Your task to perform on an android device: show emergency info Image 0: 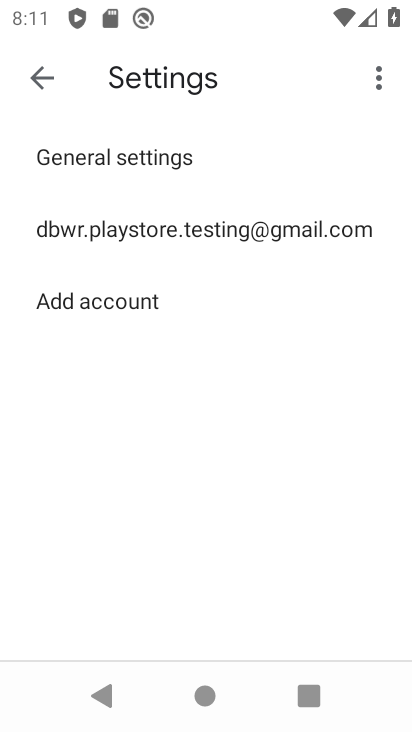
Step 0: press home button
Your task to perform on an android device: show emergency info Image 1: 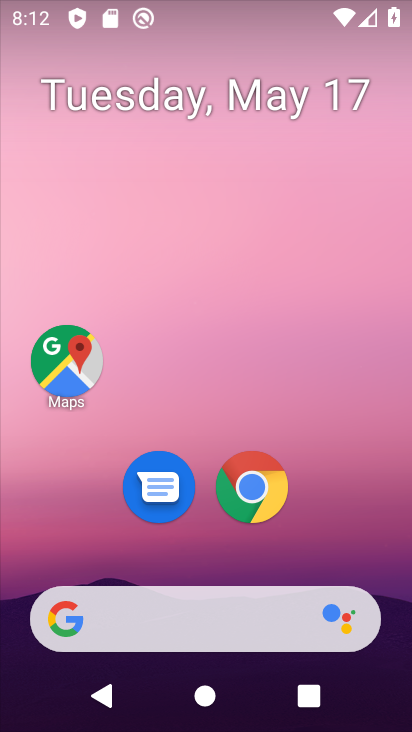
Step 1: drag from (218, 650) to (363, 80)
Your task to perform on an android device: show emergency info Image 2: 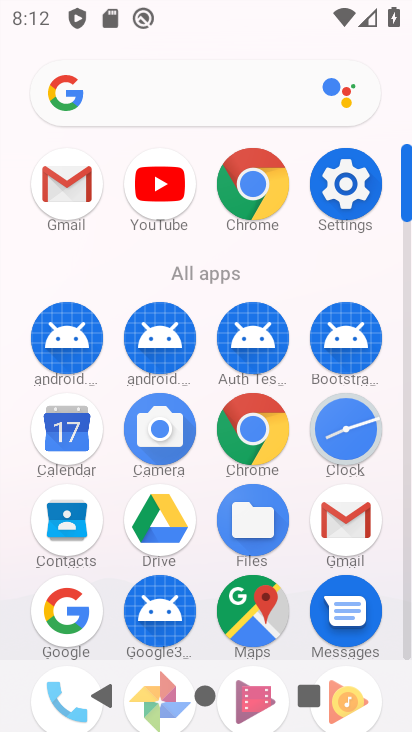
Step 2: click (329, 199)
Your task to perform on an android device: show emergency info Image 3: 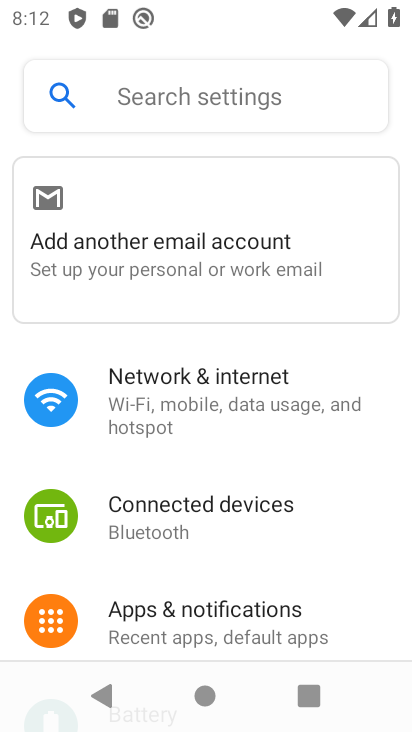
Step 3: click (196, 90)
Your task to perform on an android device: show emergency info Image 4: 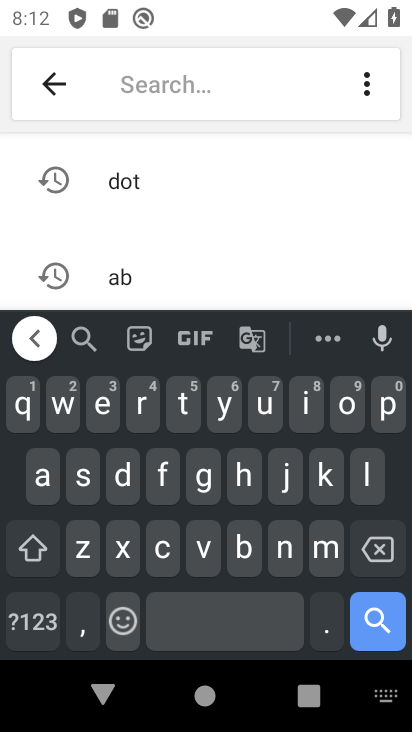
Step 4: click (99, 399)
Your task to perform on an android device: show emergency info Image 5: 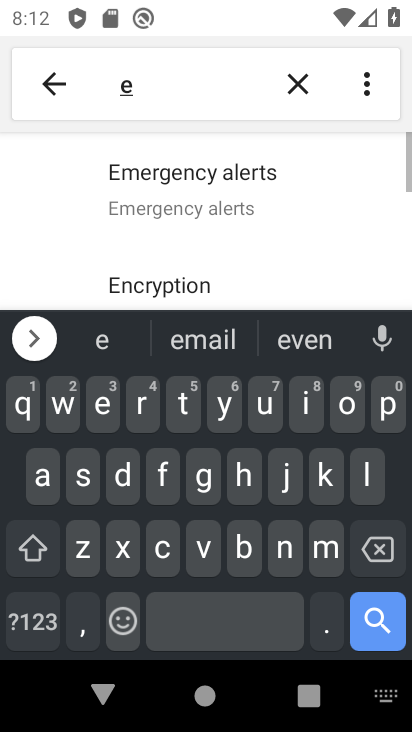
Step 5: click (333, 544)
Your task to perform on an android device: show emergency info Image 6: 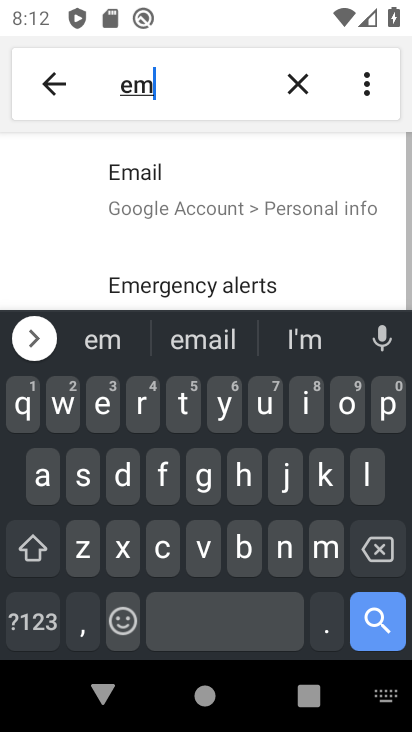
Step 6: click (109, 409)
Your task to perform on an android device: show emergency info Image 7: 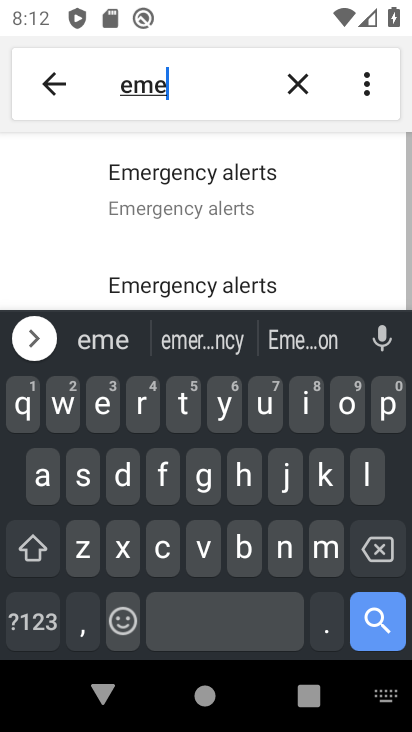
Step 7: click (190, 337)
Your task to perform on an android device: show emergency info Image 8: 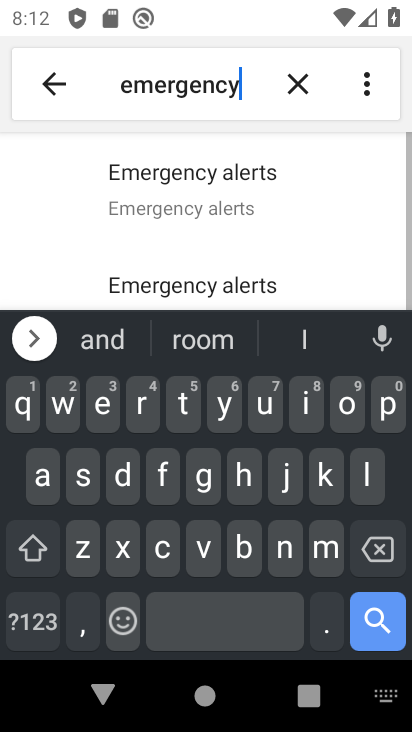
Step 8: click (302, 412)
Your task to perform on an android device: show emergency info Image 9: 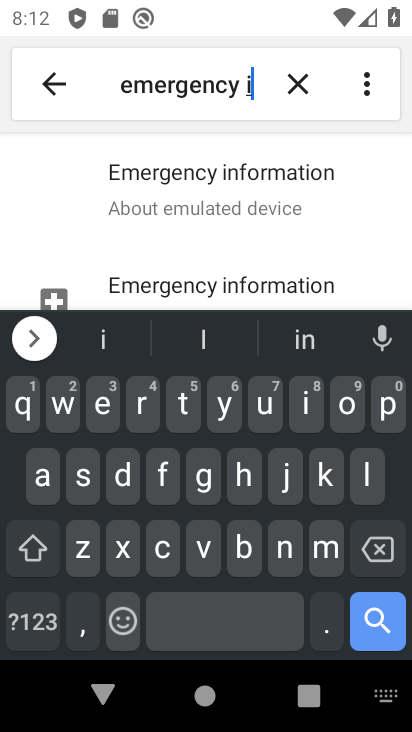
Step 9: click (272, 165)
Your task to perform on an android device: show emergency info Image 10: 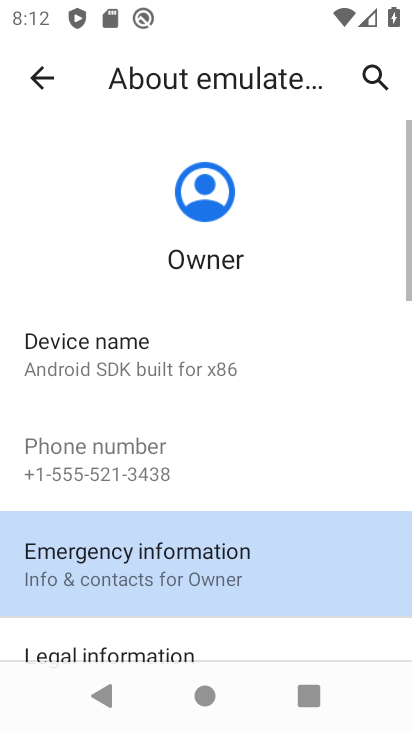
Step 10: click (129, 561)
Your task to perform on an android device: show emergency info Image 11: 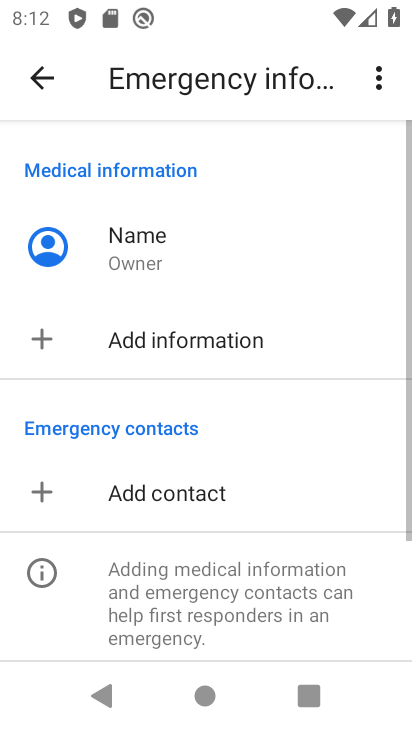
Step 11: task complete